Your task to perform on an android device: check out phone information Image 0: 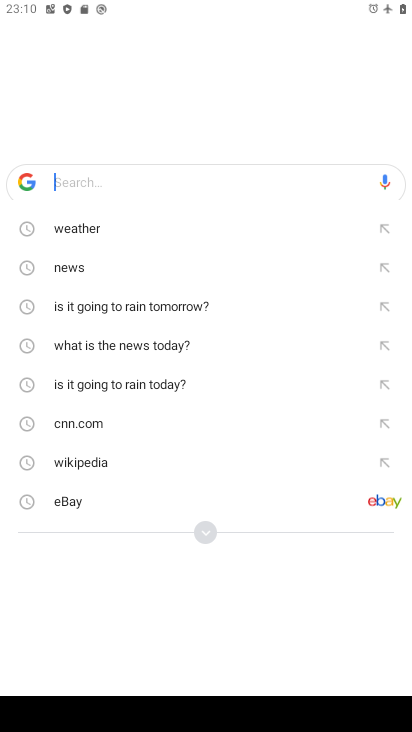
Step 0: press home button
Your task to perform on an android device: check out phone information Image 1: 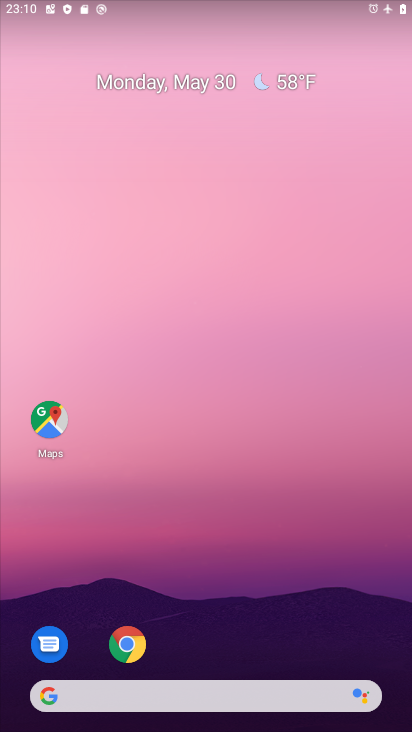
Step 1: drag from (382, 648) to (307, 127)
Your task to perform on an android device: check out phone information Image 2: 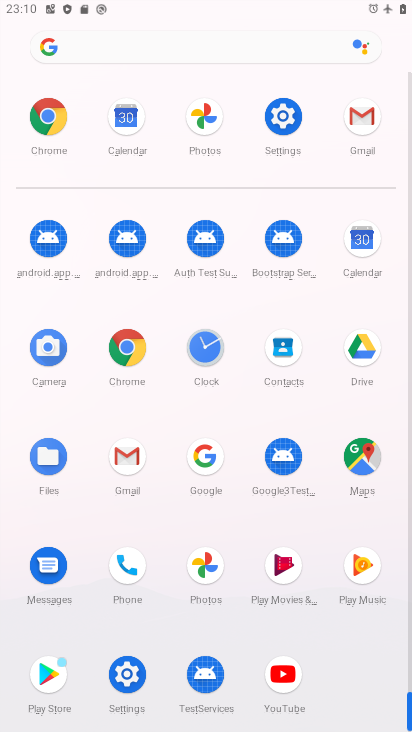
Step 2: click (127, 673)
Your task to perform on an android device: check out phone information Image 3: 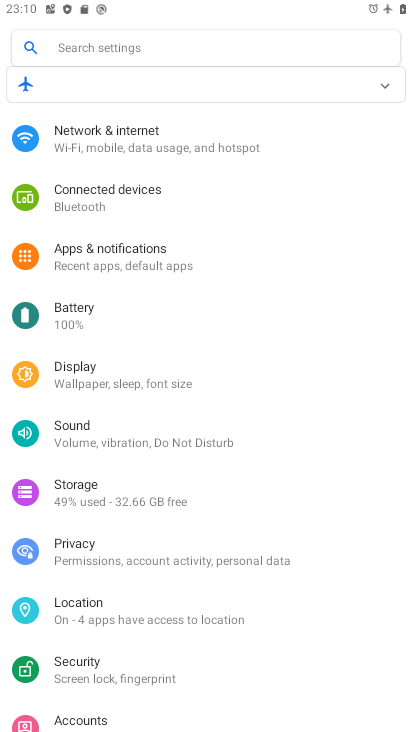
Step 3: drag from (321, 669) to (321, 180)
Your task to perform on an android device: check out phone information Image 4: 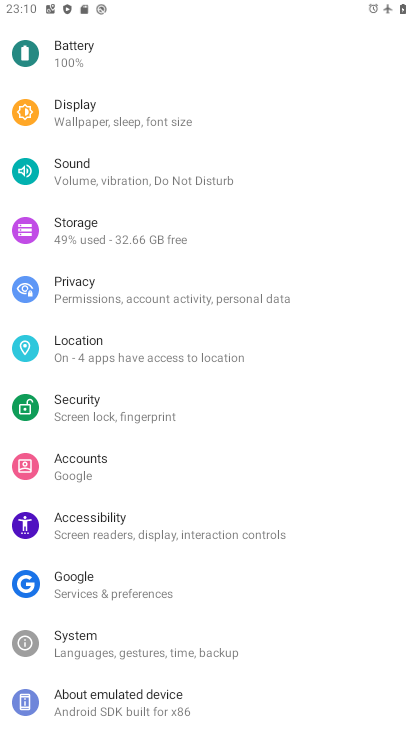
Step 4: click (81, 697)
Your task to perform on an android device: check out phone information Image 5: 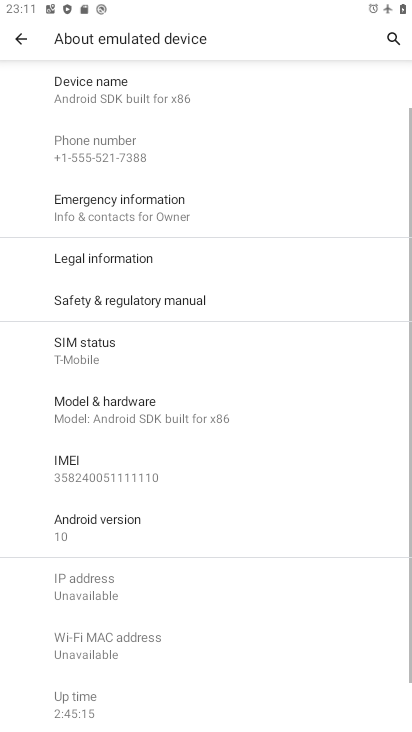
Step 5: task complete